Your task to perform on an android device: search for starred emails in the gmail app Image 0: 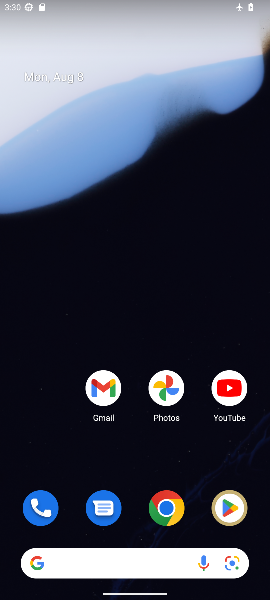
Step 0: press home button
Your task to perform on an android device: search for starred emails in the gmail app Image 1: 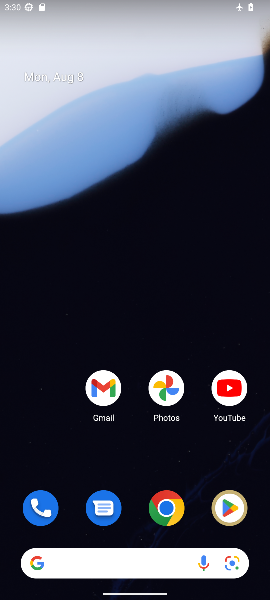
Step 1: click (102, 389)
Your task to perform on an android device: search for starred emails in the gmail app Image 2: 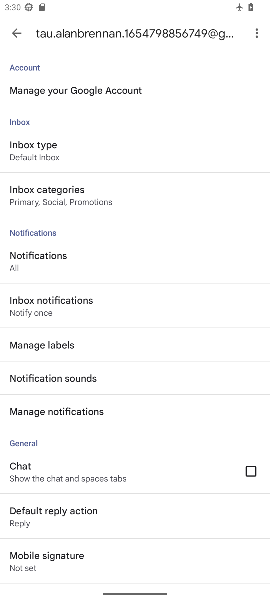
Step 2: click (19, 35)
Your task to perform on an android device: search for starred emails in the gmail app Image 3: 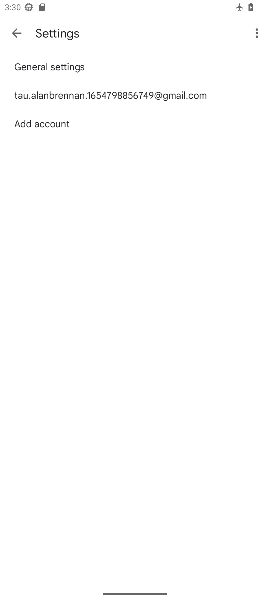
Step 3: click (19, 32)
Your task to perform on an android device: search for starred emails in the gmail app Image 4: 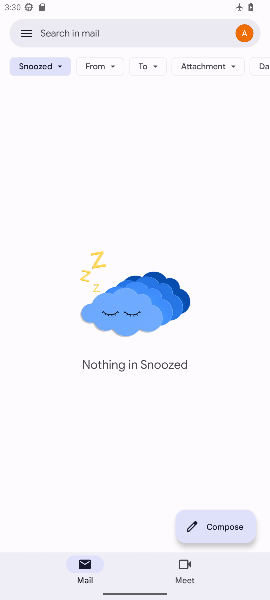
Step 4: click (21, 32)
Your task to perform on an android device: search for starred emails in the gmail app Image 5: 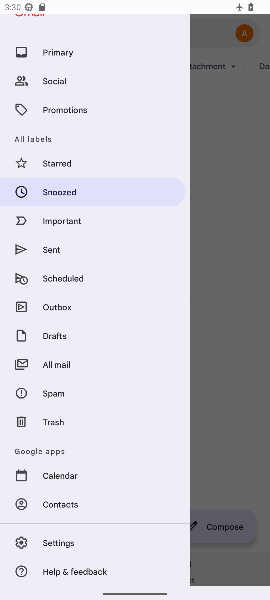
Step 5: click (64, 158)
Your task to perform on an android device: search for starred emails in the gmail app Image 6: 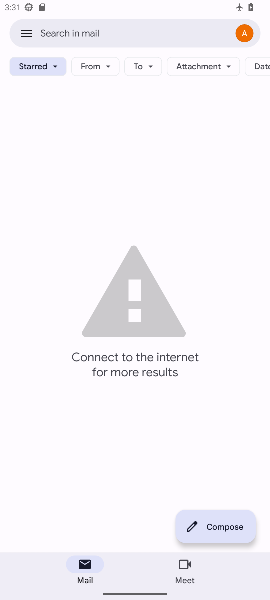
Step 6: task complete